Your task to perform on an android device: When is my next meeting? Image 0: 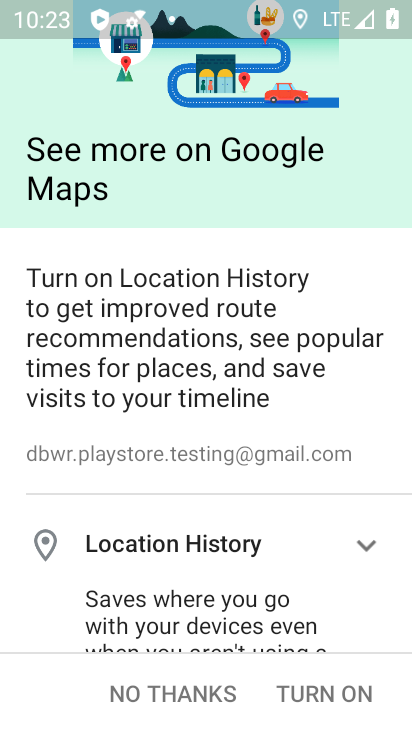
Step 0: press home button
Your task to perform on an android device: When is my next meeting? Image 1: 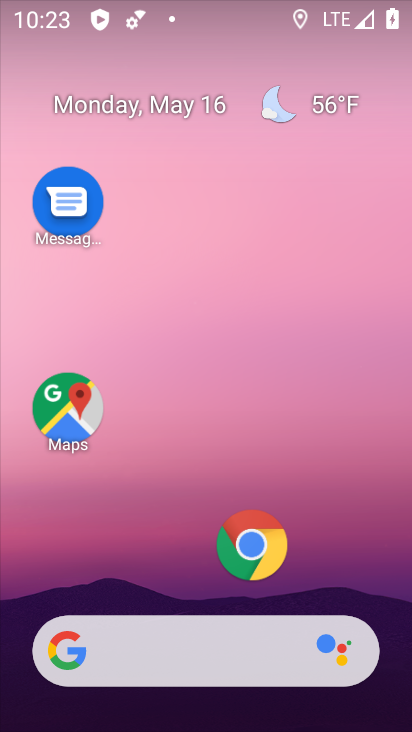
Step 1: click (193, 669)
Your task to perform on an android device: When is my next meeting? Image 2: 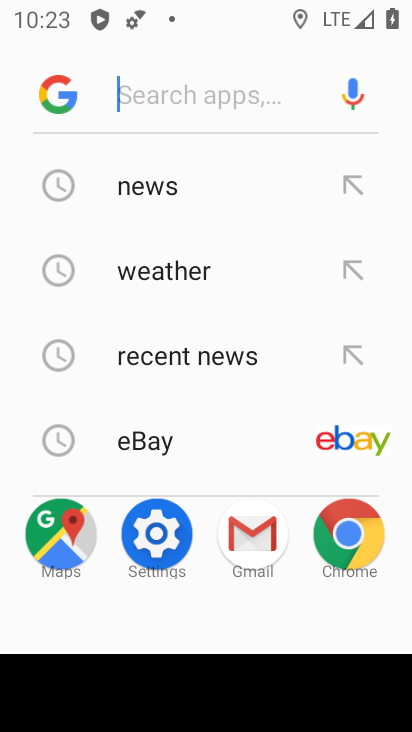
Step 2: press home button
Your task to perform on an android device: When is my next meeting? Image 3: 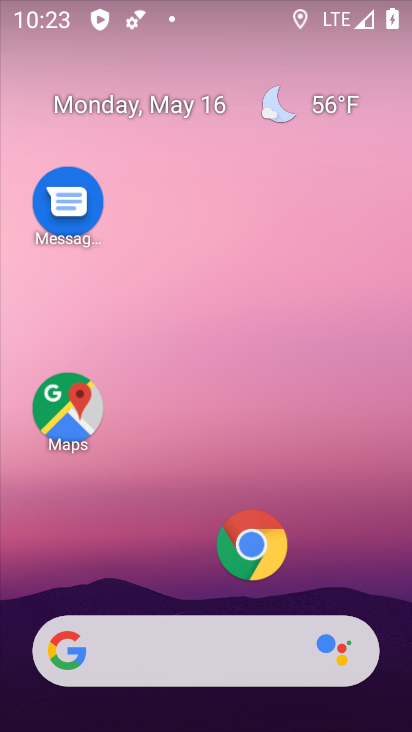
Step 3: drag from (207, 607) to (205, 7)
Your task to perform on an android device: When is my next meeting? Image 4: 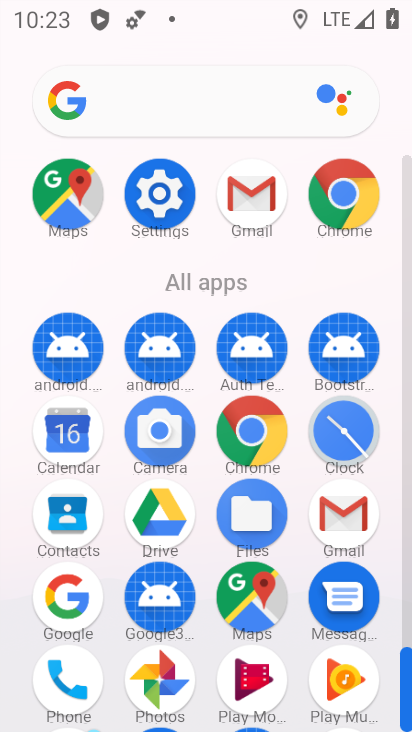
Step 4: click (68, 454)
Your task to perform on an android device: When is my next meeting? Image 5: 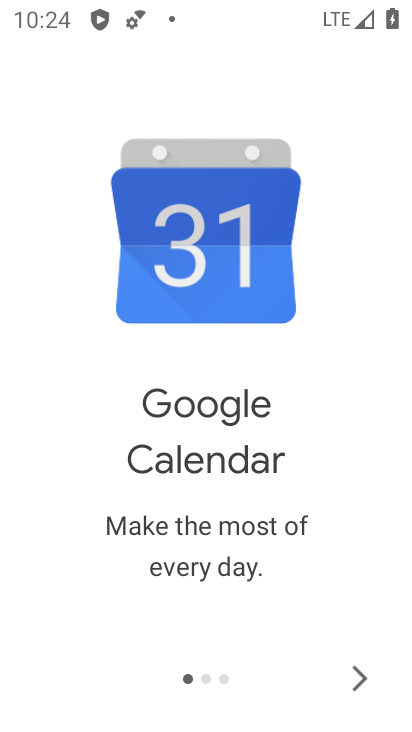
Step 5: click (363, 675)
Your task to perform on an android device: When is my next meeting? Image 6: 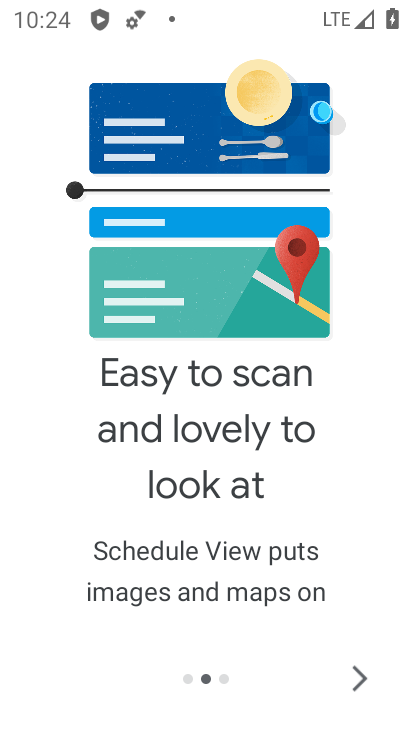
Step 6: click (363, 675)
Your task to perform on an android device: When is my next meeting? Image 7: 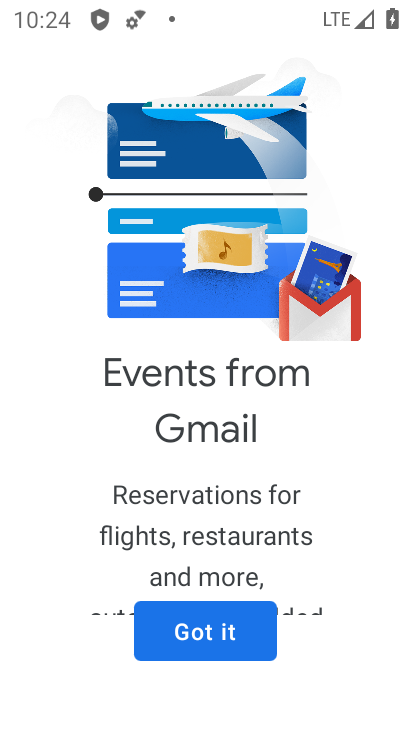
Step 7: click (234, 617)
Your task to perform on an android device: When is my next meeting? Image 8: 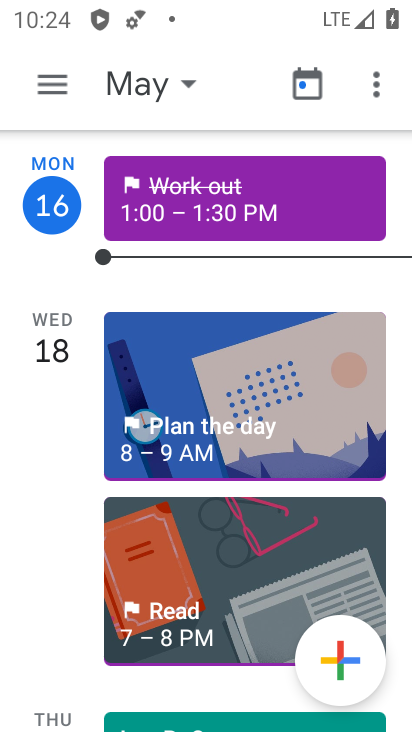
Step 8: task complete